Your task to perform on an android device: turn on notifications settings in the gmail app Image 0: 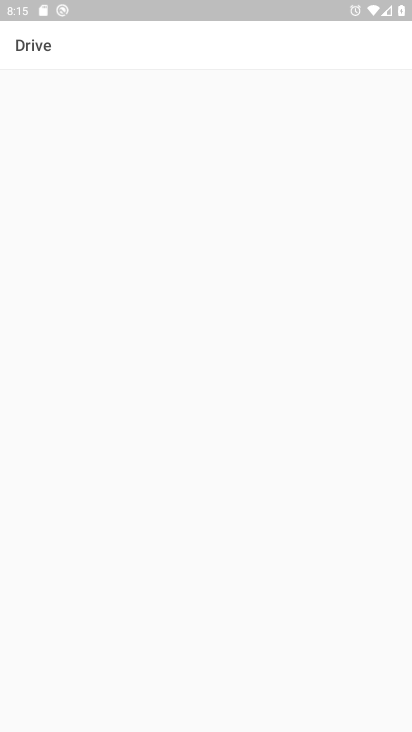
Step 0: press home button
Your task to perform on an android device: turn on notifications settings in the gmail app Image 1: 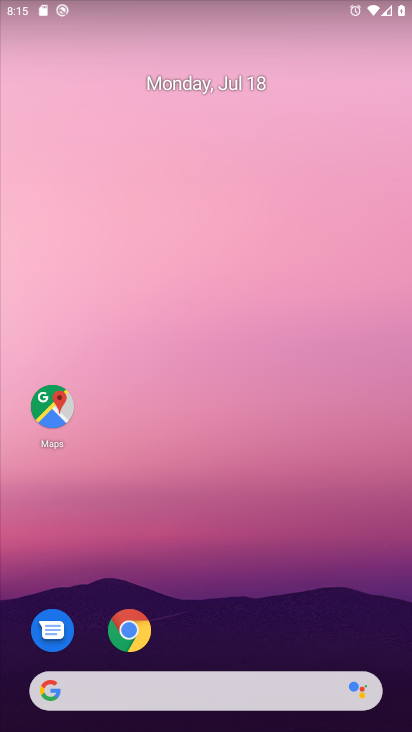
Step 1: drag from (239, 608) to (254, 112)
Your task to perform on an android device: turn on notifications settings in the gmail app Image 2: 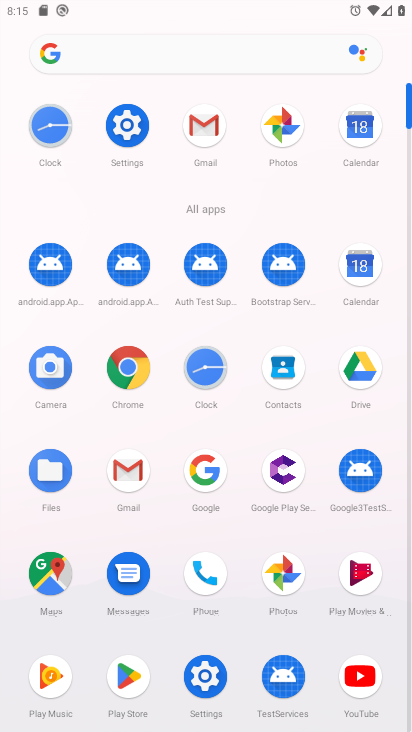
Step 2: click (216, 126)
Your task to perform on an android device: turn on notifications settings in the gmail app Image 3: 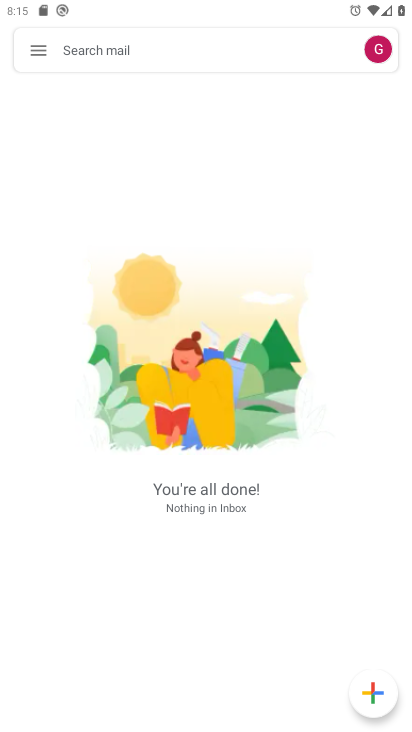
Step 3: click (33, 48)
Your task to perform on an android device: turn on notifications settings in the gmail app Image 4: 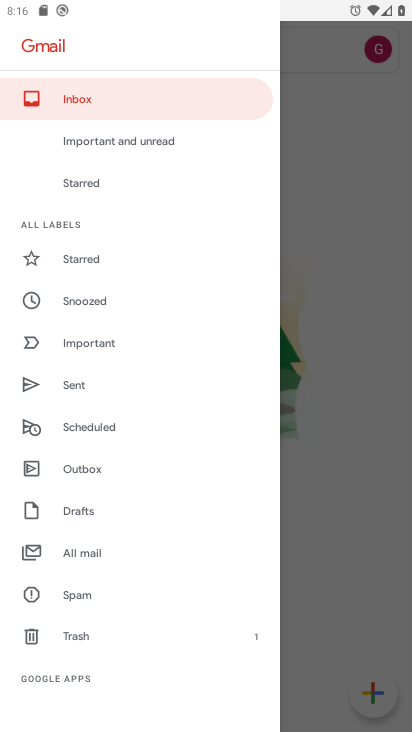
Step 4: drag from (115, 638) to (160, 374)
Your task to perform on an android device: turn on notifications settings in the gmail app Image 5: 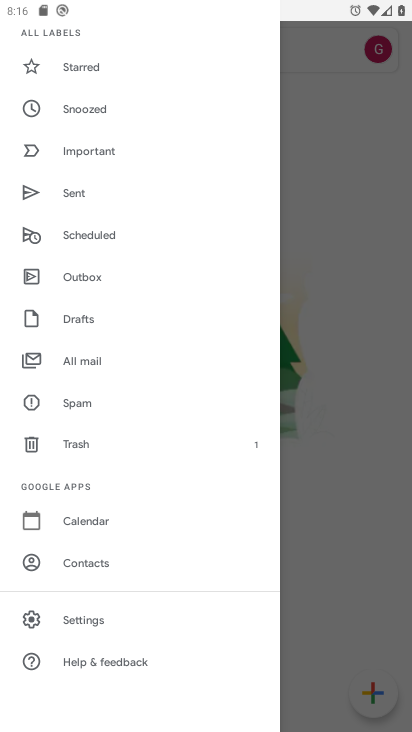
Step 5: click (90, 610)
Your task to perform on an android device: turn on notifications settings in the gmail app Image 6: 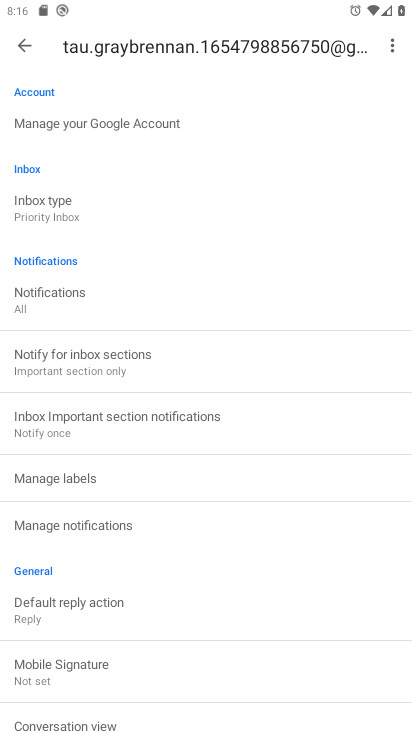
Step 6: click (84, 526)
Your task to perform on an android device: turn on notifications settings in the gmail app Image 7: 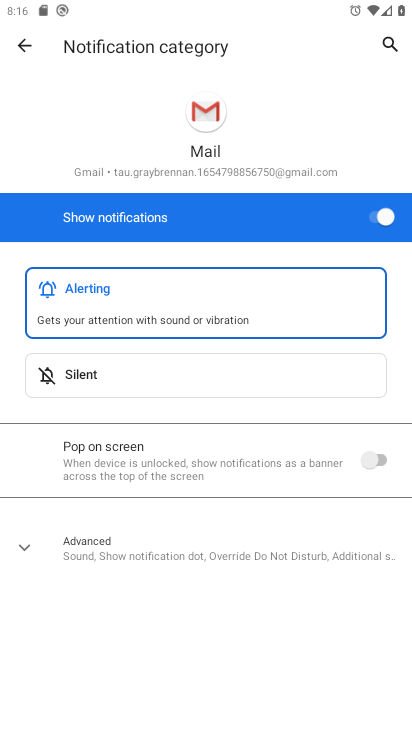
Step 7: task complete